Your task to perform on an android device: Open settings on Google Maps Image 0: 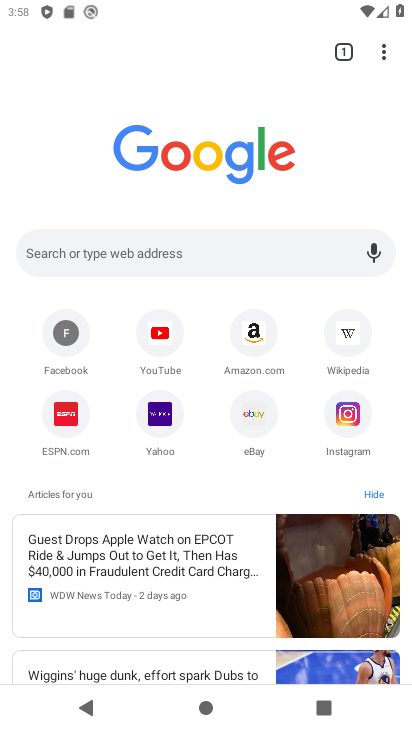
Step 0: press home button
Your task to perform on an android device: Open settings on Google Maps Image 1: 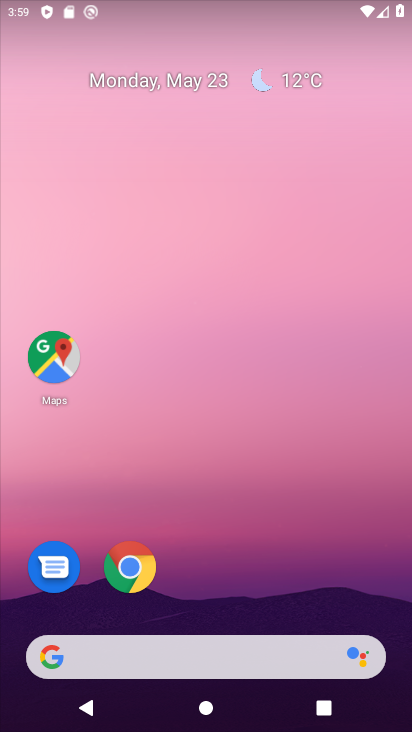
Step 1: click (54, 356)
Your task to perform on an android device: Open settings on Google Maps Image 2: 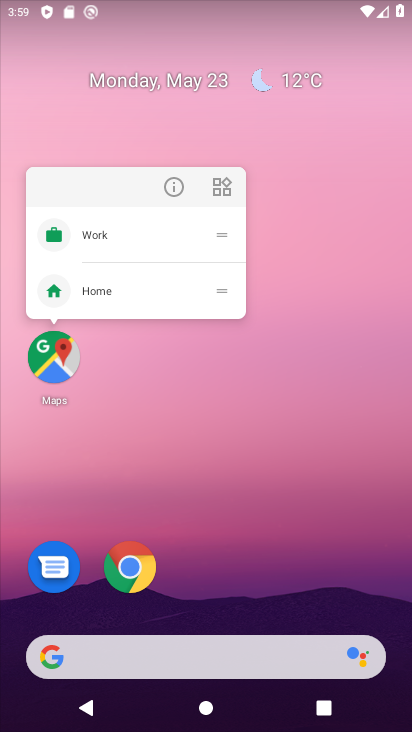
Step 2: click (54, 356)
Your task to perform on an android device: Open settings on Google Maps Image 3: 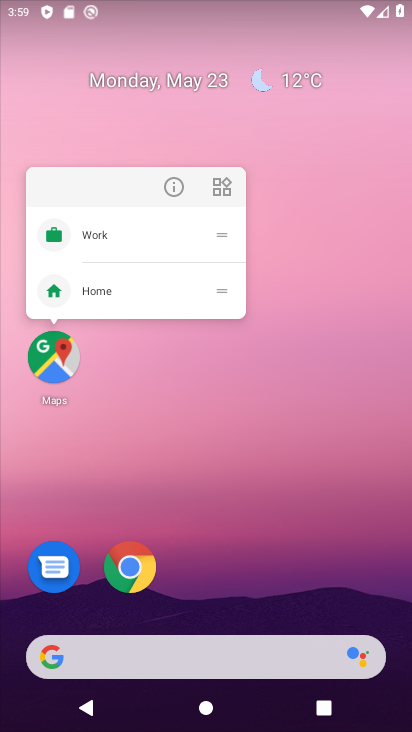
Step 3: click (175, 195)
Your task to perform on an android device: Open settings on Google Maps Image 4: 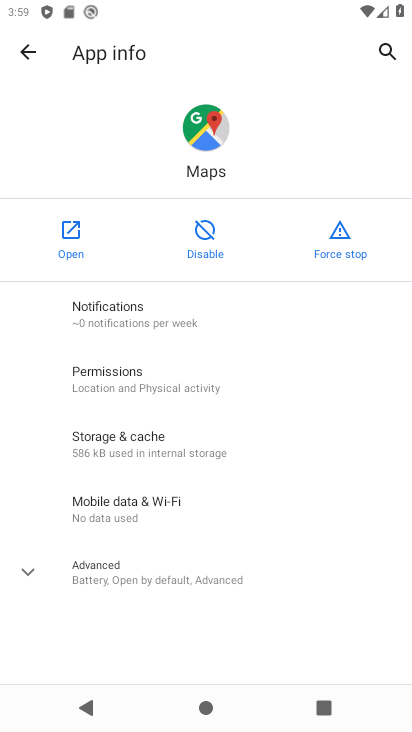
Step 4: click (81, 241)
Your task to perform on an android device: Open settings on Google Maps Image 5: 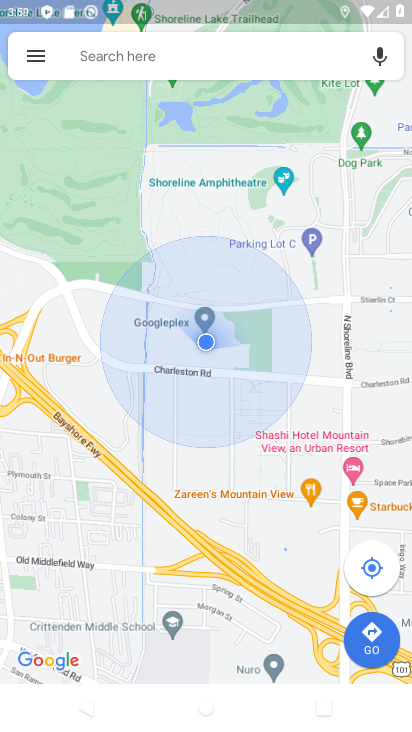
Step 5: click (37, 56)
Your task to perform on an android device: Open settings on Google Maps Image 6: 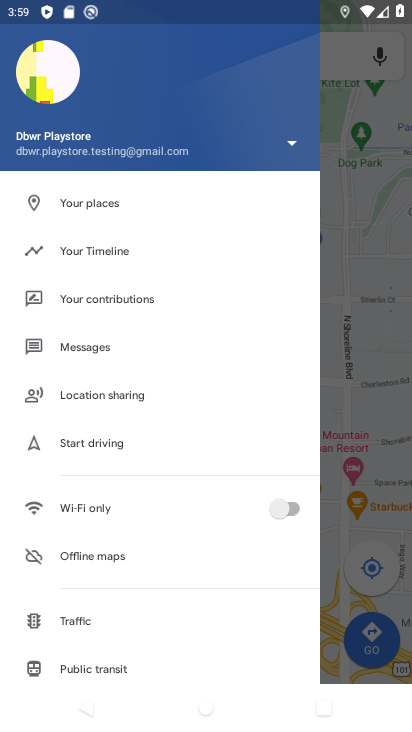
Step 6: click (124, 374)
Your task to perform on an android device: Open settings on Google Maps Image 7: 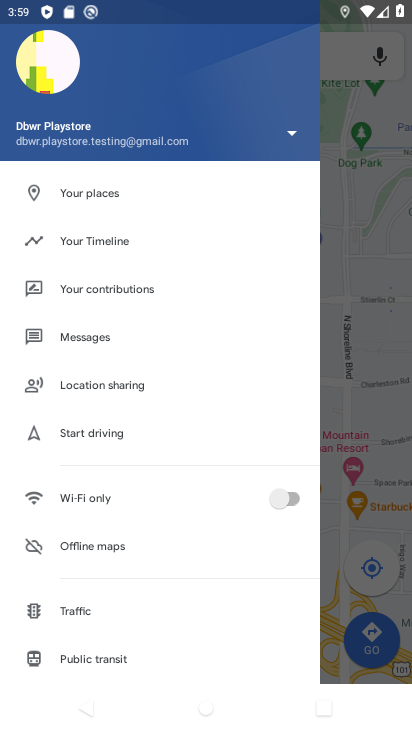
Step 7: drag from (141, 627) to (224, 237)
Your task to perform on an android device: Open settings on Google Maps Image 8: 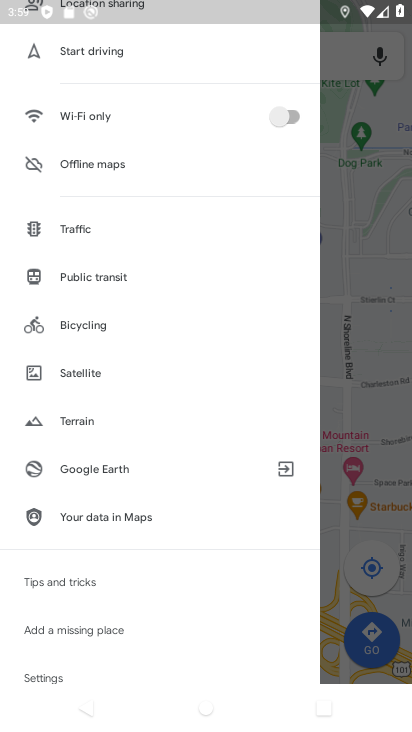
Step 8: drag from (135, 641) to (173, 326)
Your task to perform on an android device: Open settings on Google Maps Image 9: 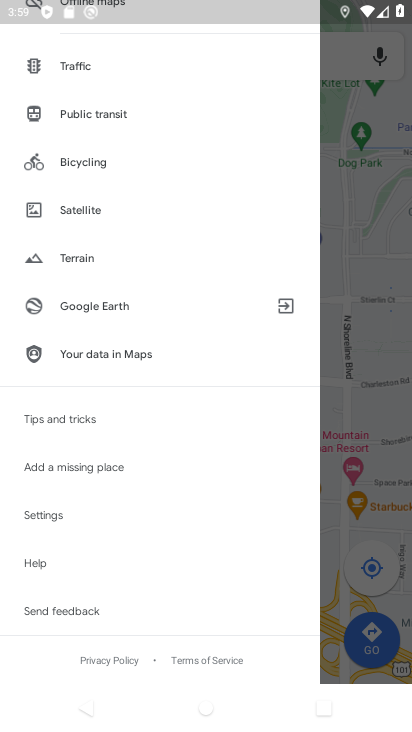
Step 9: click (26, 514)
Your task to perform on an android device: Open settings on Google Maps Image 10: 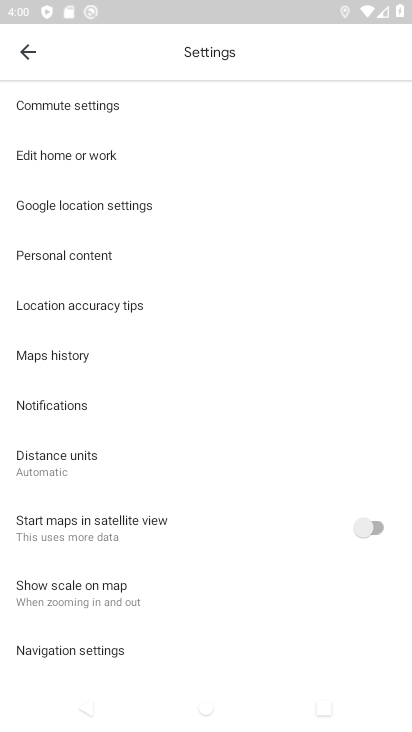
Step 10: task complete